Your task to perform on an android device: turn on data saver in the chrome app Image 0: 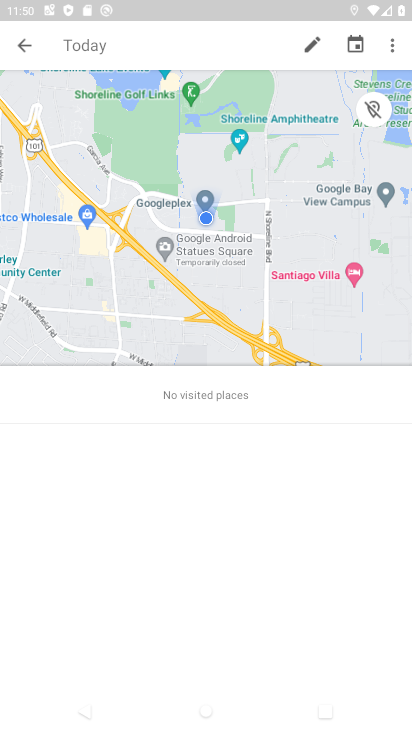
Step 0: press home button
Your task to perform on an android device: turn on data saver in the chrome app Image 1: 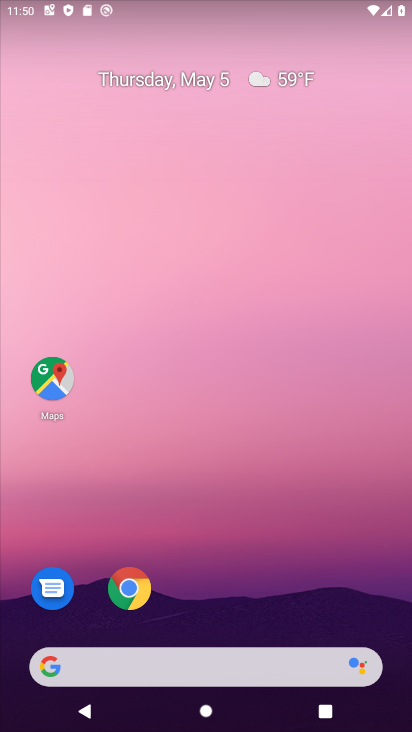
Step 1: drag from (239, 465) to (287, 21)
Your task to perform on an android device: turn on data saver in the chrome app Image 2: 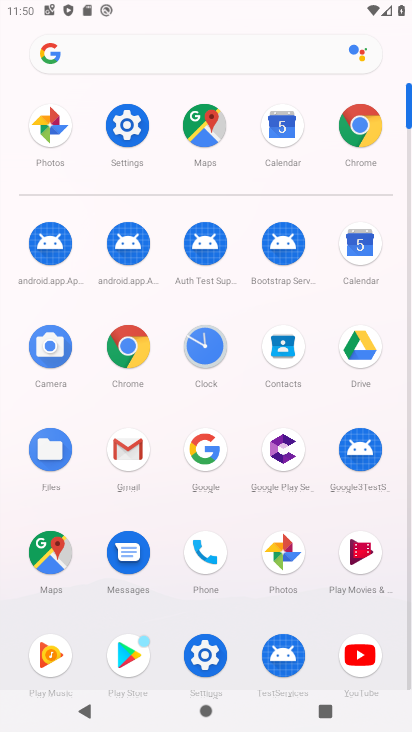
Step 2: click (350, 120)
Your task to perform on an android device: turn on data saver in the chrome app Image 3: 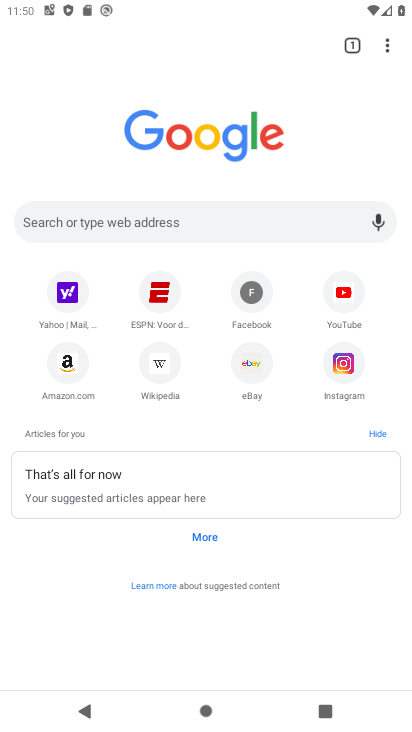
Step 3: click (383, 47)
Your task to perform on an android device: turn on data saver in the chrome app Image 4: 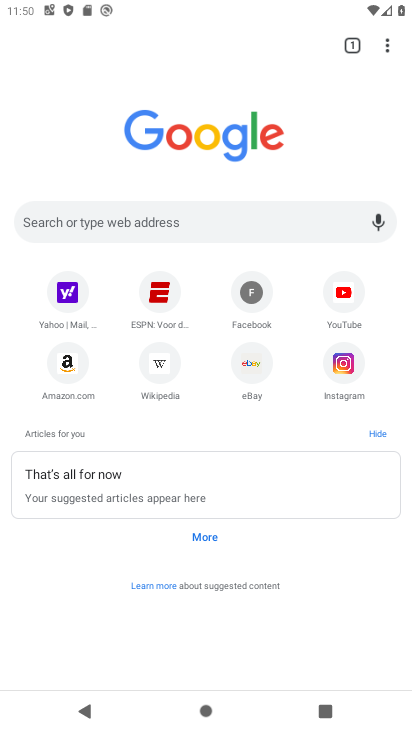
Step 4: drag from (389, 43) to (254, 379)
Your task to perform on an android device: turn on data saver in the chrome app Image 5: 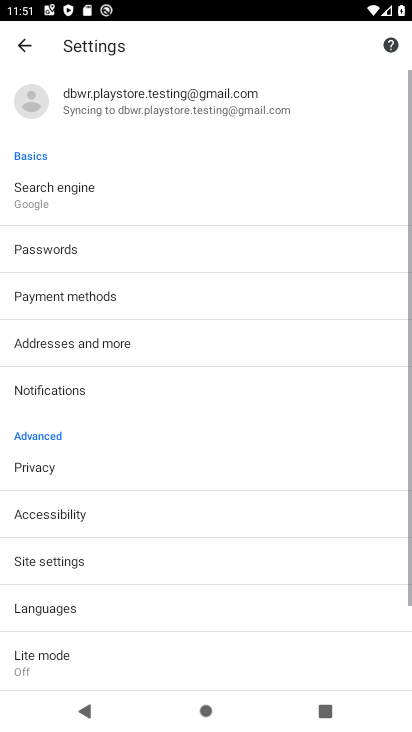
Step 5: drag from (213, 495) to (233, 181)
Your task to perform on an android device: turn on data saver in the chrome app Image 6: 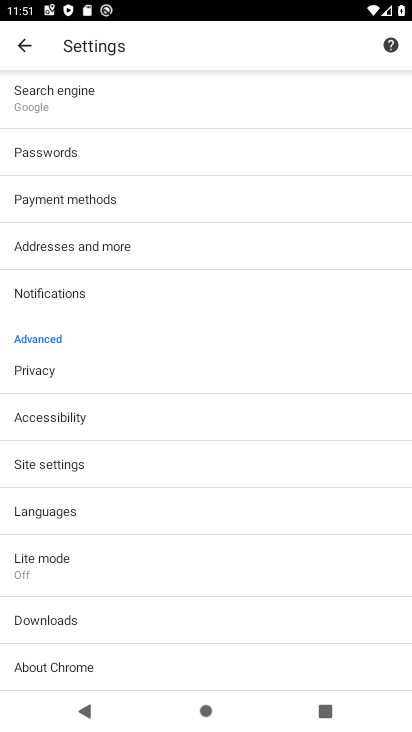
Step 6: click (130, 571)
Your task to perform on an android device: turn on data saver in the chrome app Image 7: 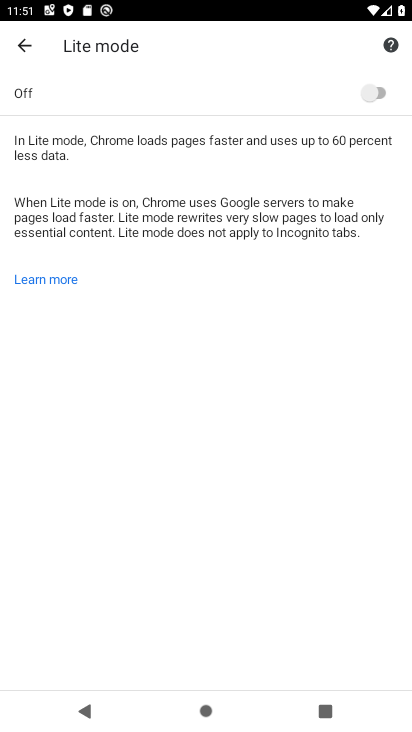
Step 7: click (378, 87)
Your task to perform on an android device: turn on data saver in the chrome app Image 8: 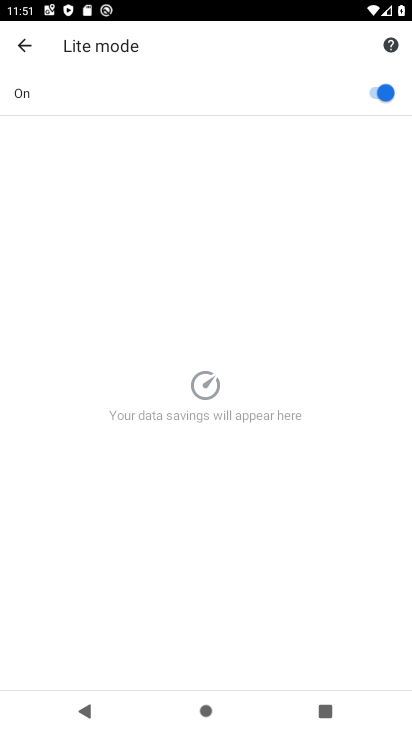
Step 8: task complete